Your task to perform on an android device: turn on the 24-hour format for clock Image 0: 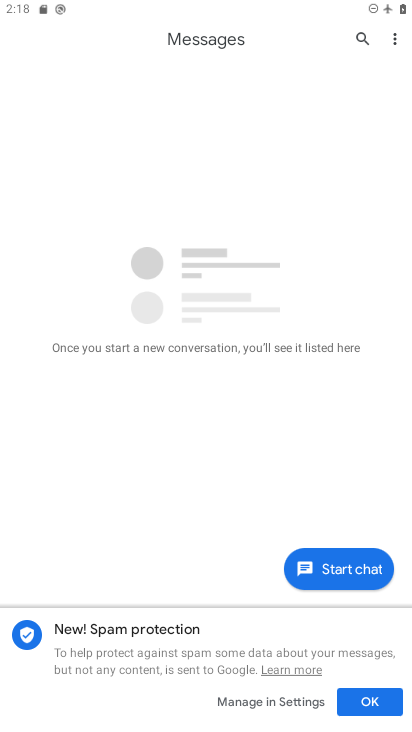
Step 0: click (259, 401)
Your task to perform on an android device: turn on the 24-hour format for clock Image 1: 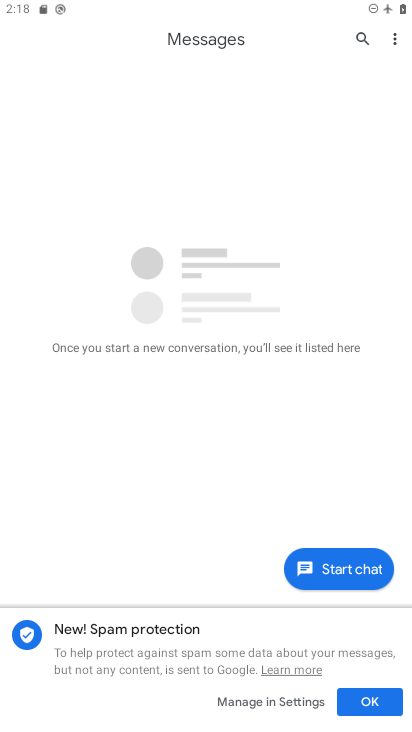
Step 1: press home button
Your task to perform on an android device: turn on the 24-hour format for clock Image 2: 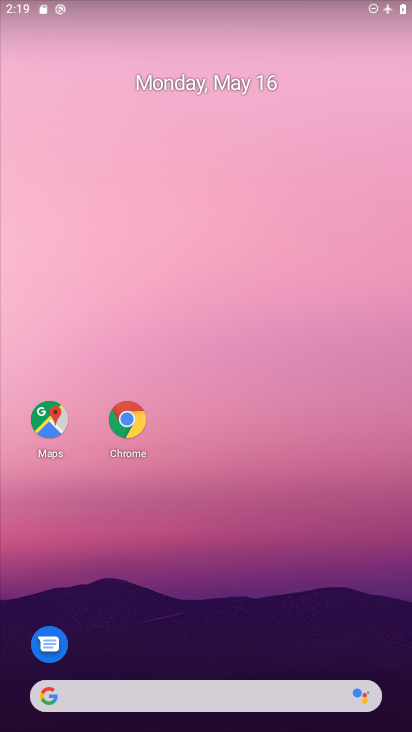
Step 2: drag from (206, 552) to (220, 224)
Your task to perform on an android device: turn on the 24-hour format for clock Image 3: 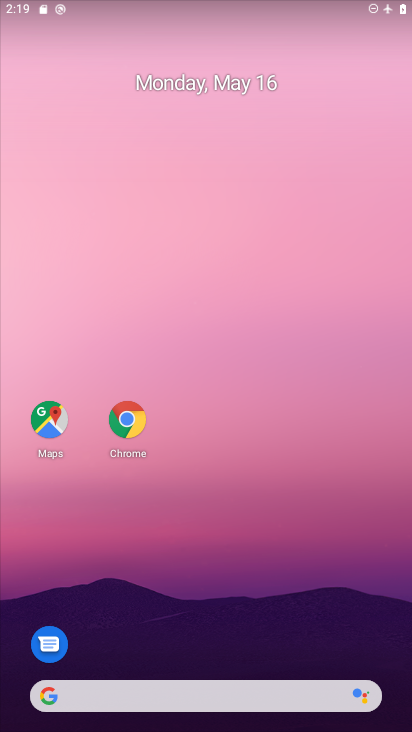
Step 3: drag from (200, 631) to (154, 123)
Your task to perform on an android device: turn on the 24-hour format for clock Image 4: 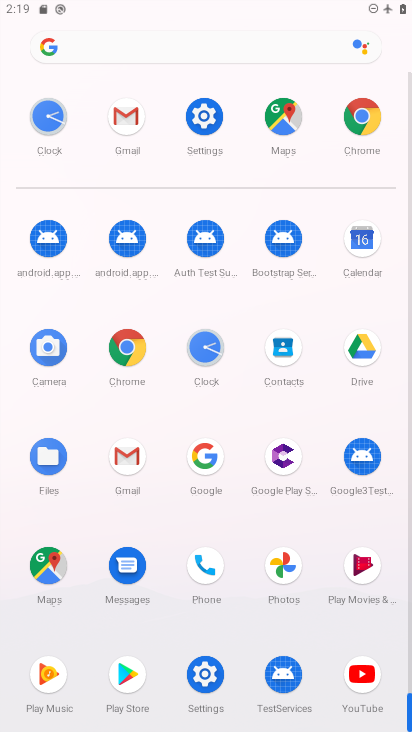
Step 4: click (203, 349)
Your task to perform on an android device: turn on the 24-hour format for clock Image 5: 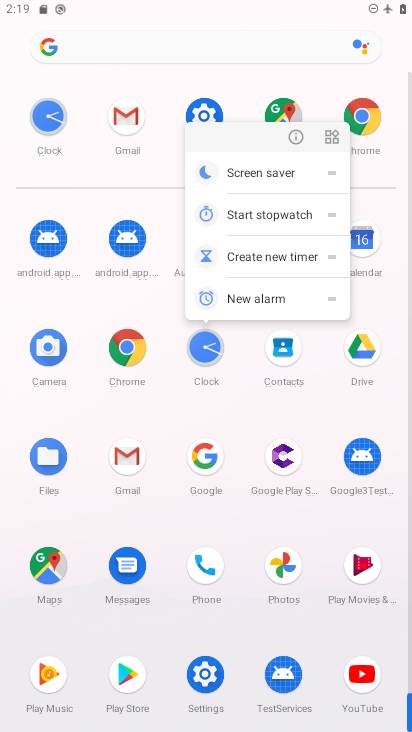
Step 5: click (288, 134)
Your task to perform on an android device: turn on the 24-hour format for clock Image 6: 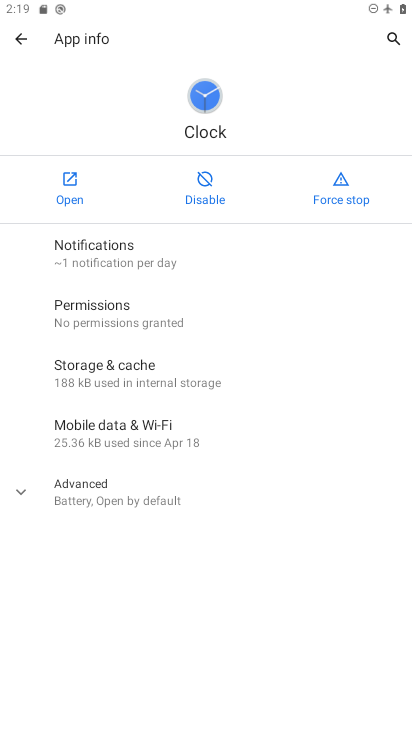
Step 6: click (76, 189)
Your task to perform on an android device: turn on the 24-hour format for clock Image 7: 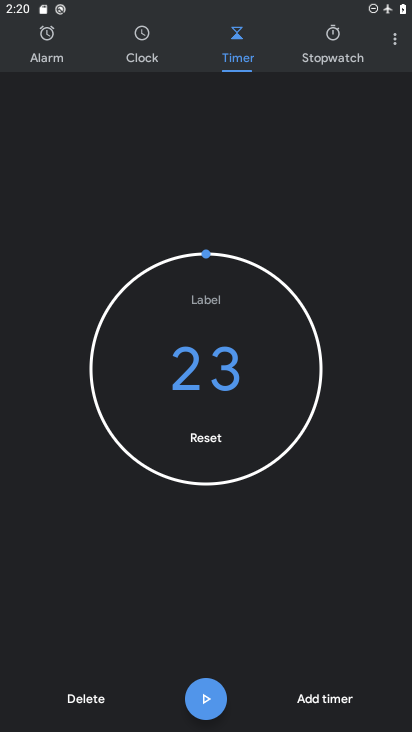
Step 7: click (391, 39)
Your task to perform on an android device: turn on the 24-hour format for clock Image 8: 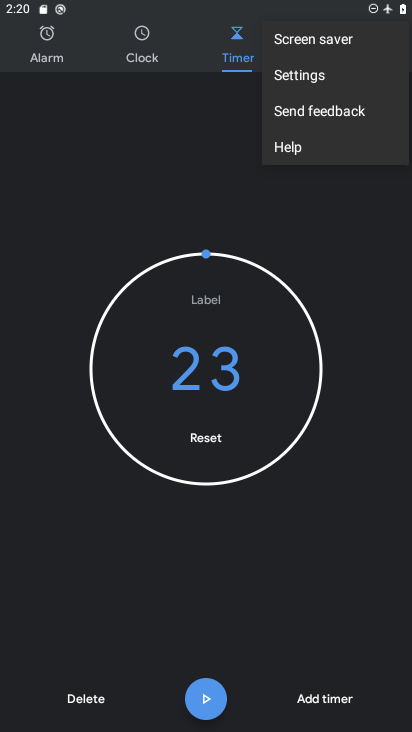
Step 8: click (320, 84)
Your task to perform on an android device: turn on the 24-hour format for clock Image 9: 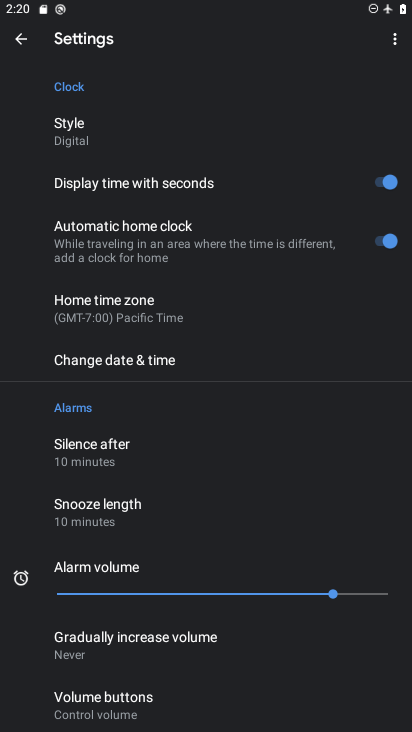
Step 9: click (176, 369)
Your task to perform on an android device: turn on the 24-hour format for clock Image 10: 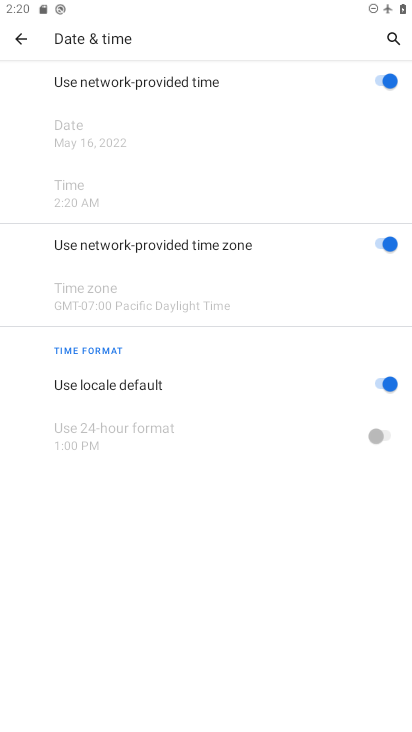
Step 10: task complete